Your task to perform on an android device: move an email to a new category in the gmail app Image 0: 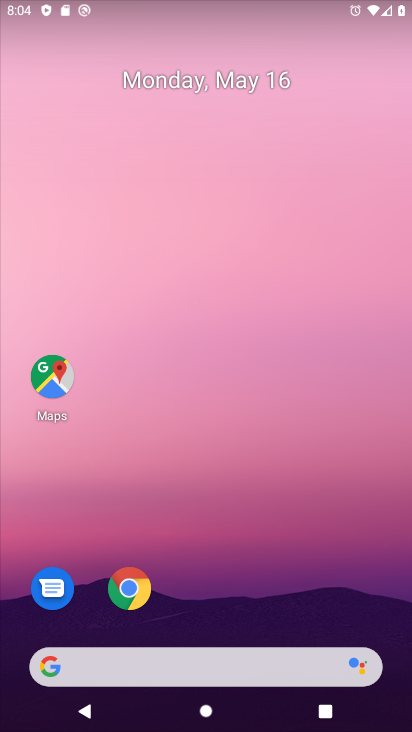
Step 0: drag from (281, 696) to (134, 318)
Your task to perform on an android device: move an email to a new category in the gmail app Image 1: 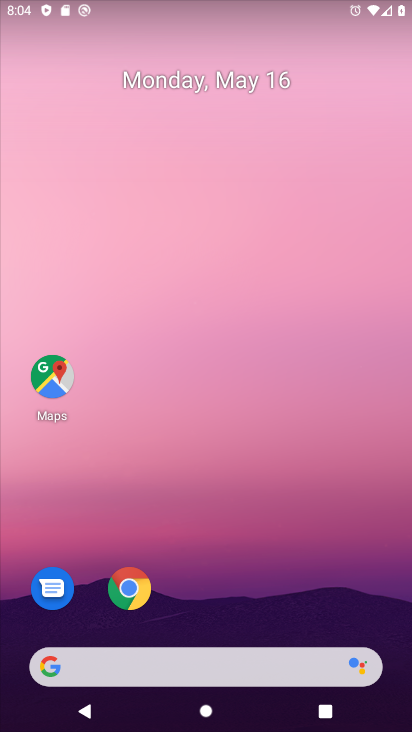
Step 1: drag from (291, 678) to (197, 305)
Your task to perform on an android device: move an email to a new category in the gmail app Image 2: 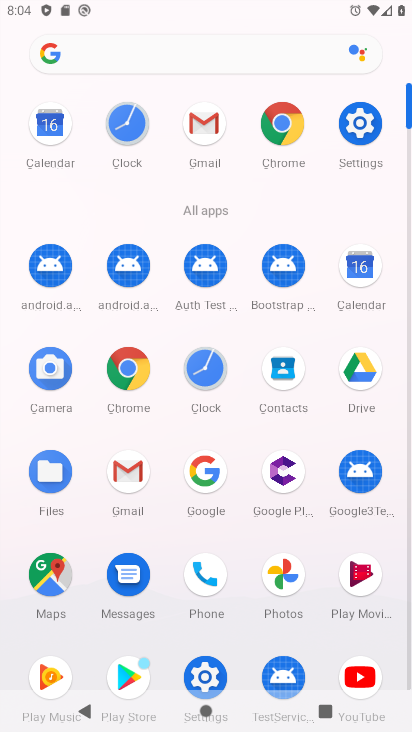
Step 2: click (124, 451)
Your task to perform on an android device: move an email to a new category in the gmail app Image 3: 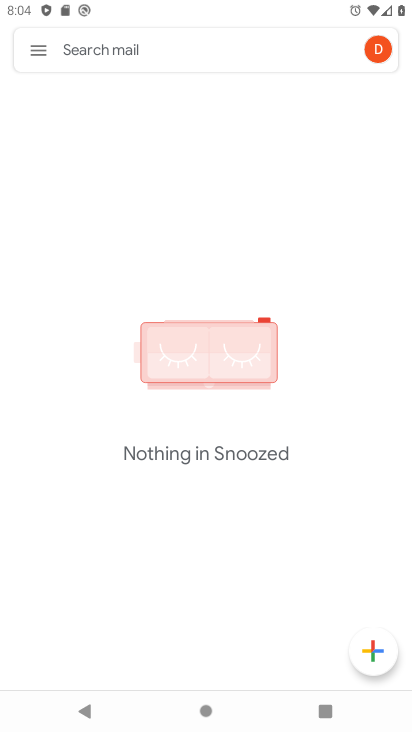
Step 3: click (32, 61)
Your task to perform on an android device: move an email to a new category in the gmail app Image 4: 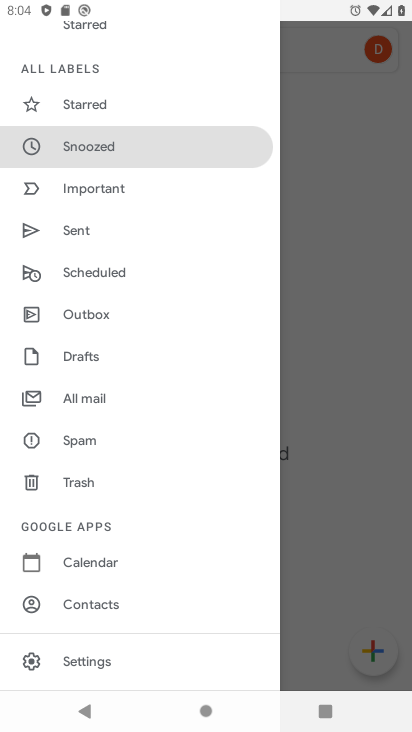
Step 4: click (75, 395)
Your task to perform on an android device: move an email to a new category in the gmail app Image 5: 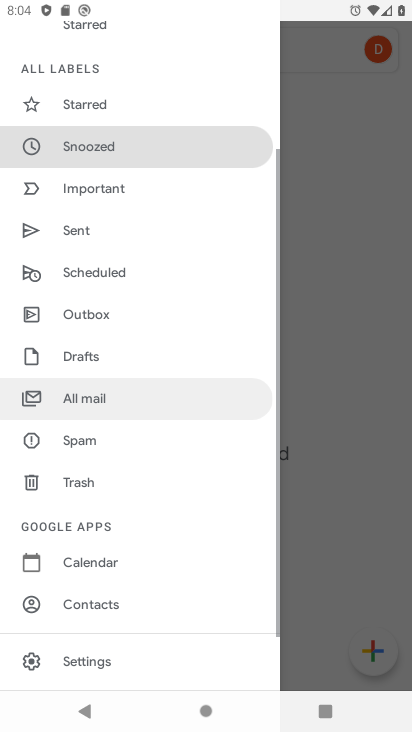
Step 5: click (75, 395)
Your task to perform on an android device: move an email to a new category in the gmail app Image 6: 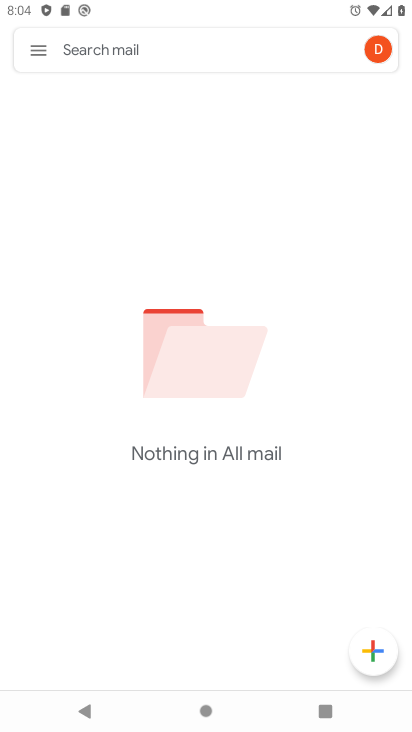
Step 6: task complete